Your task to perform on an android device: check battery use Image 0: 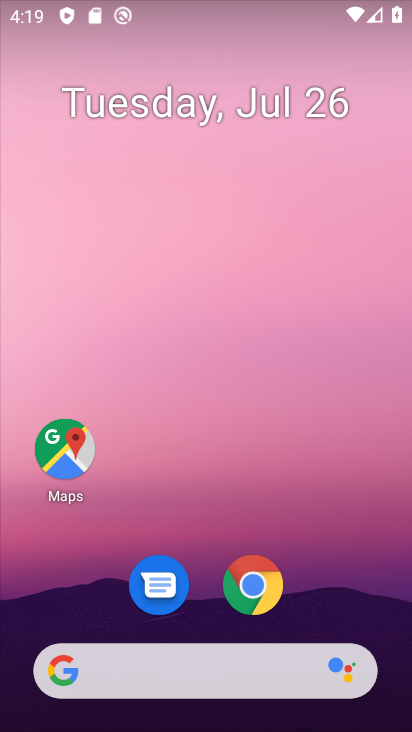
Step 0: drag from (346, 539) to (323, 21)
Your task to perform on an android device: check battery use Image 1: 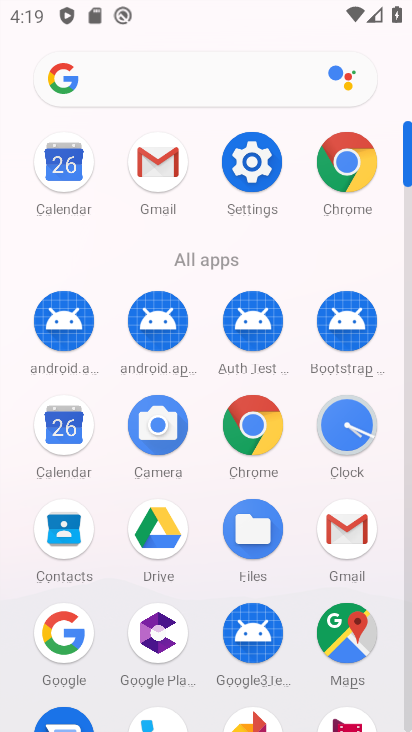
Step 1: click (257, 156)
Your task to perform on an android device: check battery use Image 2: 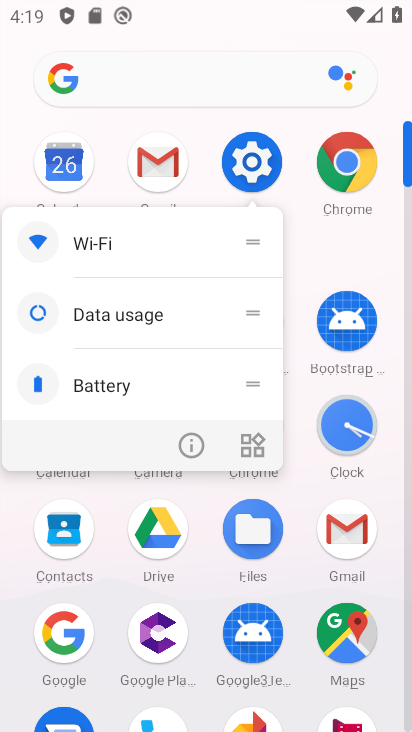
Step 2: click (248, 157)
Your task to perform on an android device: check battery use Image 3: 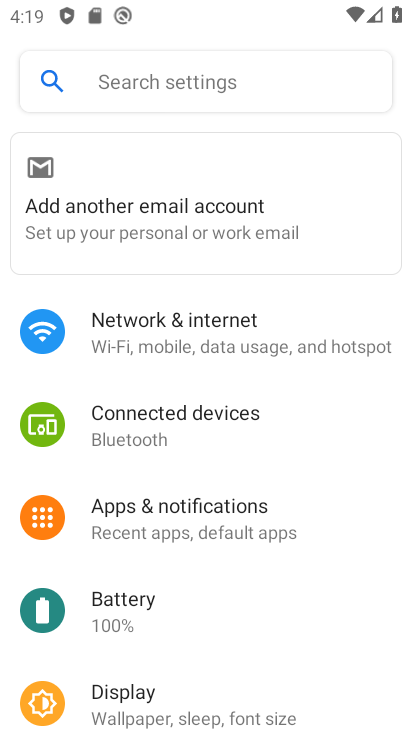
Step 3: click (146, 602)
Your task to perform on an android device: check battery use Image 4: 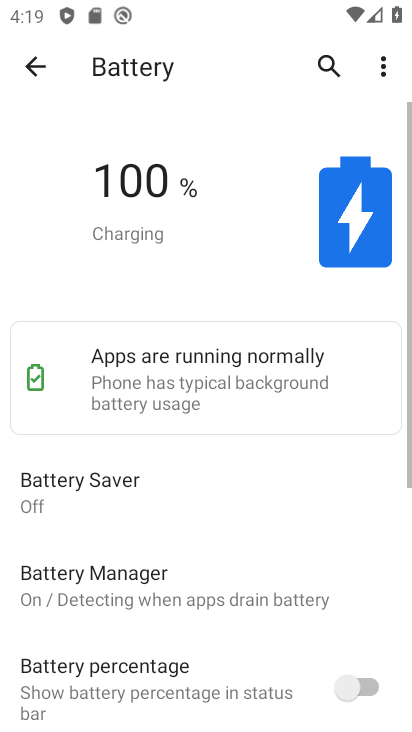
Step 4: click (380, 55)
Your task to perform on an android device: check battery use Image 5: 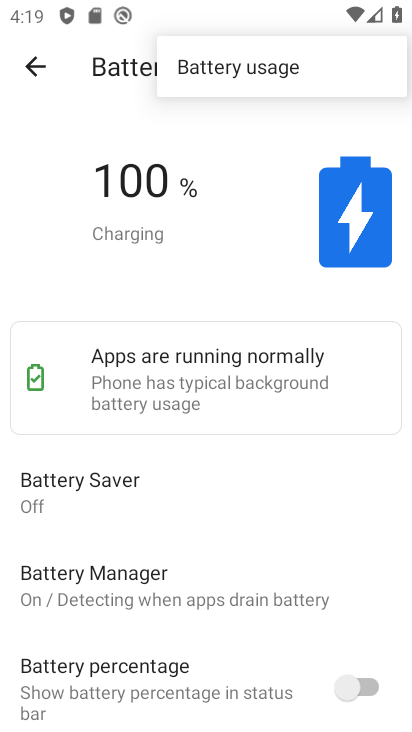
Step 5: click (271, 56)
Your task to perform on an android device: check battery use Image 6: 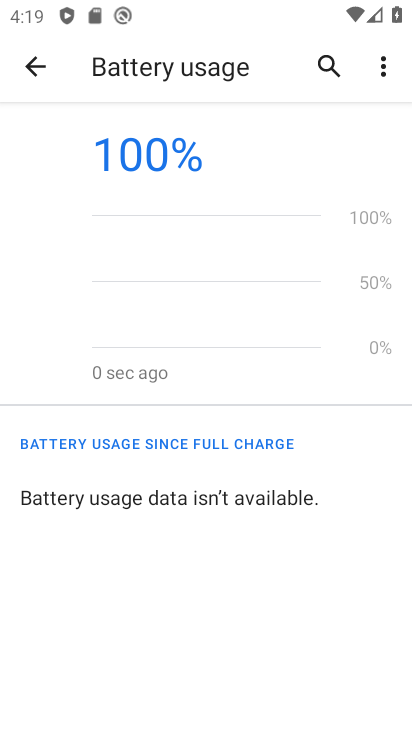
Step 6: task complete